Your task to perform on an android device: Open Maps and search for coffee Image 0: 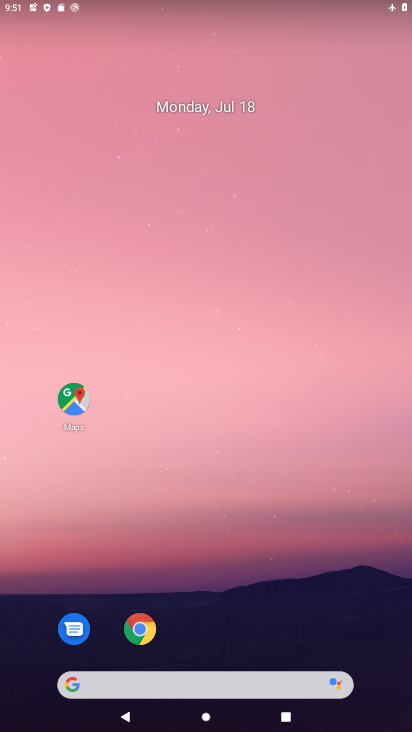
Step 0: drag from (285, 645) to (197, 92)
Your task to perform on an android device: Open Maps and search for coffee Image 1: 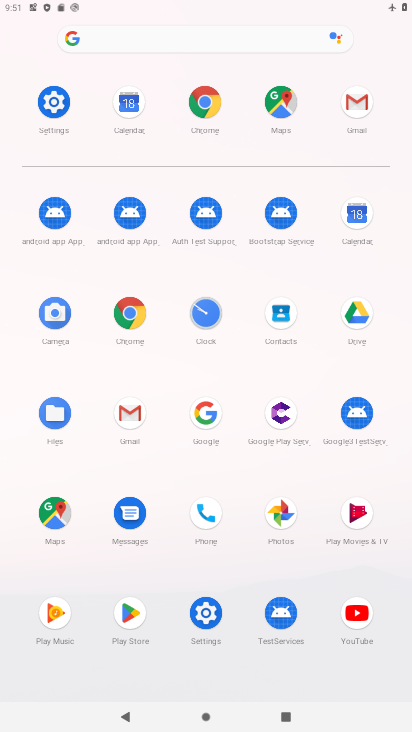
Step 1: click (276, 109)
Your task to perform on an android device: Open Maps and search for coffee Image 2: 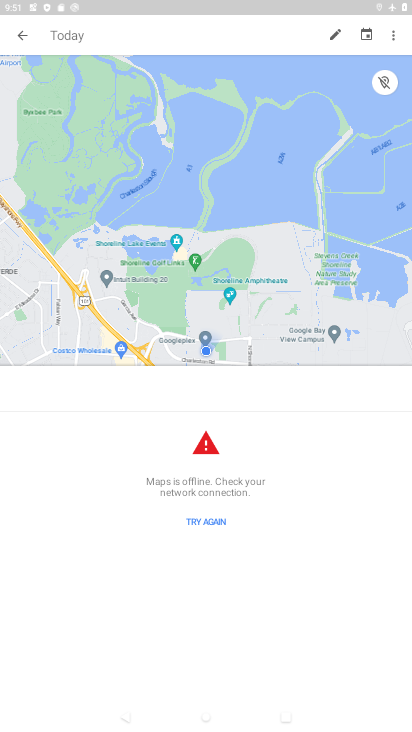
Step 2: click (20, 32)
Your task to perform on an android device: Open Maps and search for coffee Image 3: 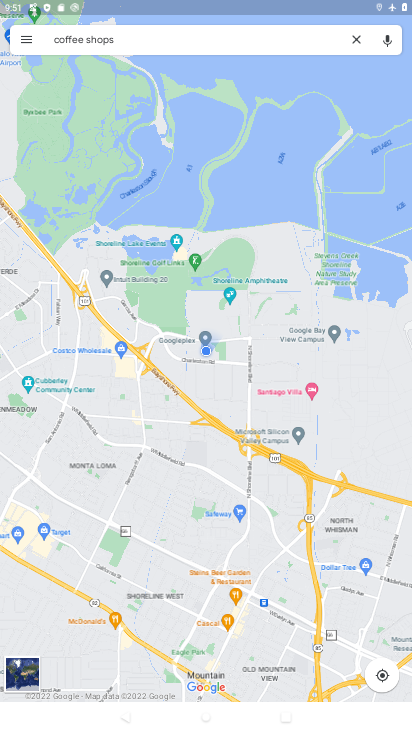
Step 3: click (95, 38)
Your task to perform on an android device: Open Maps and search for coffee Image 4: 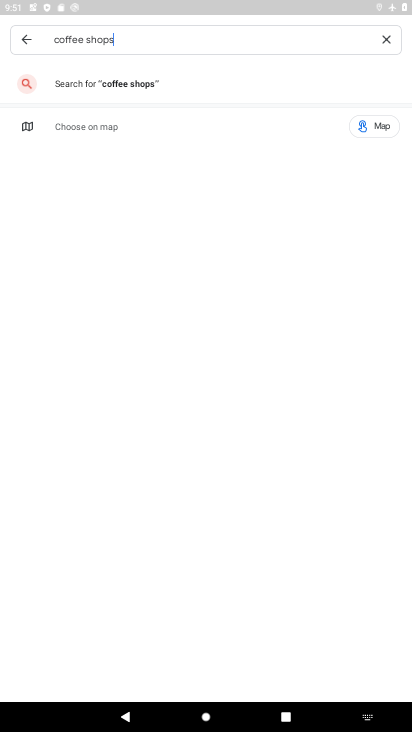
Step 4: click (390, 37)
Your task to perform on an android device: Open Maps and search for coffee Image 5: 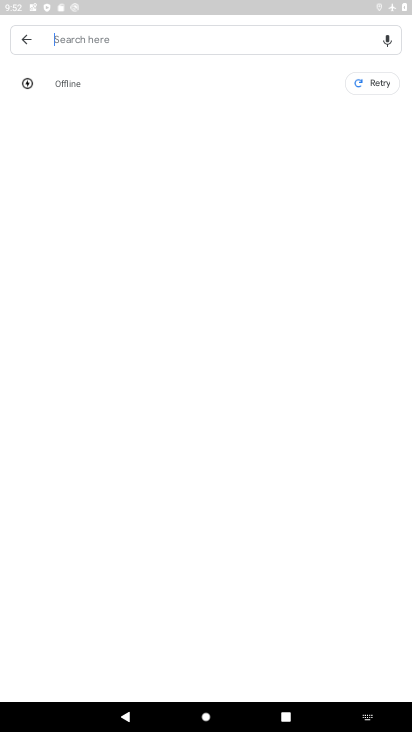
Step 5: type "coffee"
Your task to perform on an android device: Open Maps and search for coffee Image 6: 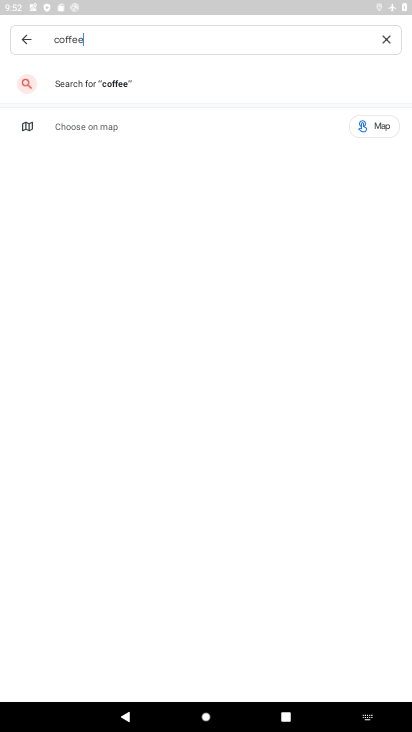
Step 6: press enter
Your task to perform on an android device: Open Maps and search for coffee Image 7: 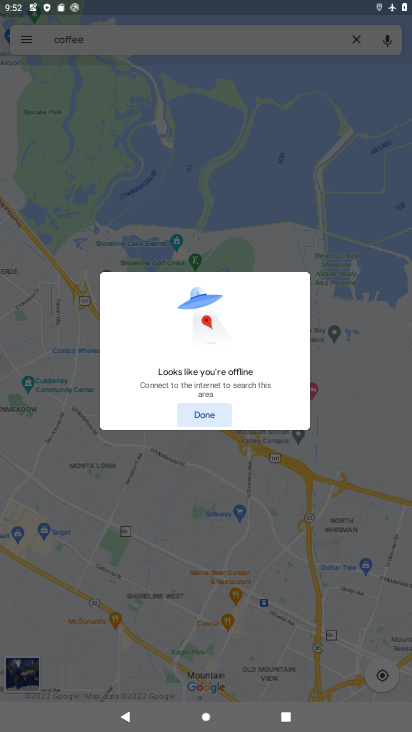
Step 7: task complete